Your task to perform on an android device: Search for Italian restaurants on Maps Image 0: 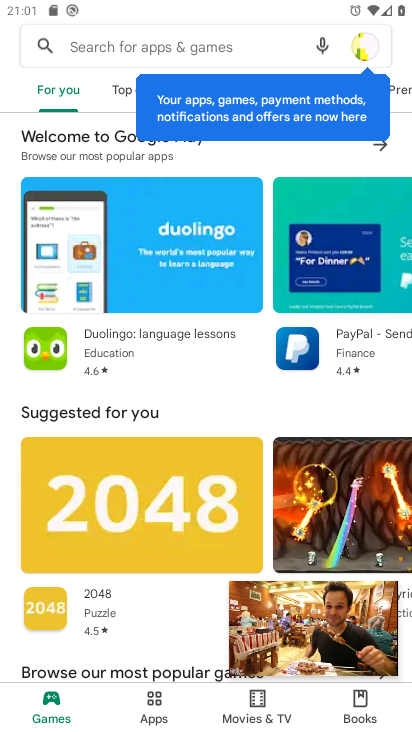
Step 0: press home button
Your task to perform on an android device: Search for Italian restaurants on Maps Image 1: 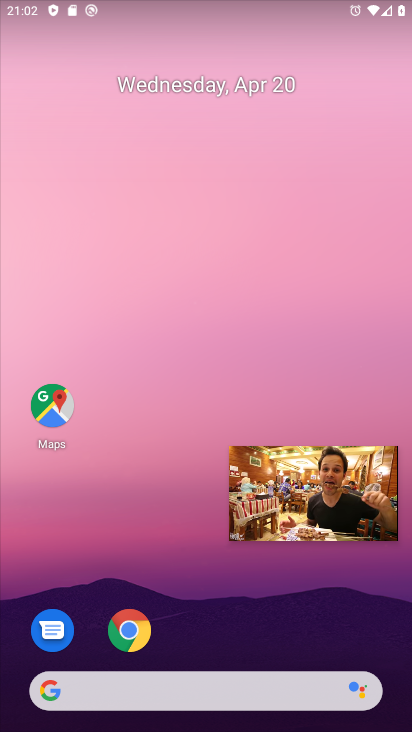
Step 1: click (44, 405)
Your task to perform on an android device: Search for Italian restaurants on Maps Image 2: 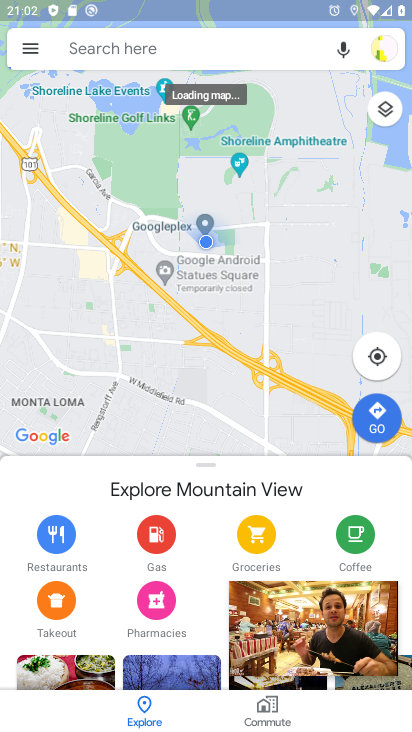
Step 2: click (158, 50)
Your task to perform on an android device: Search for Italian restaurants on Maps Image 3: 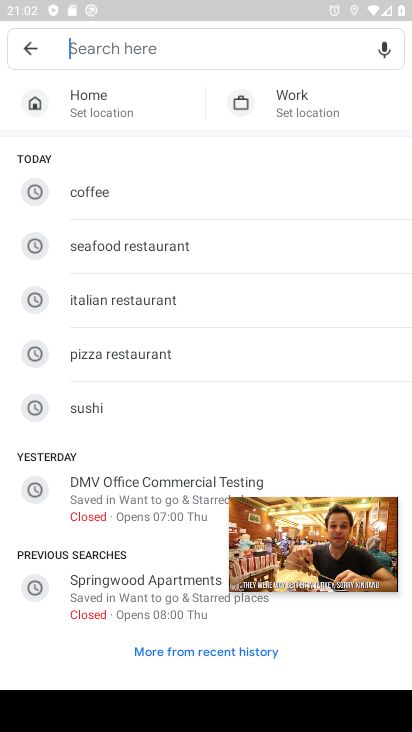
Step 3: click (177, 302)
Your task to perform on an android device: Search for Italian restaurants on Maps Image 4: 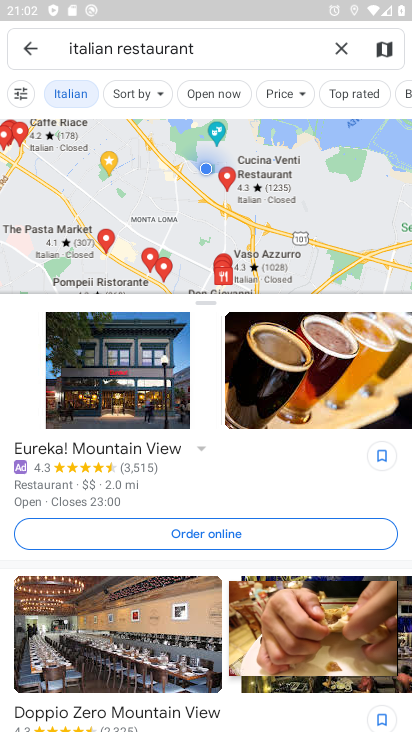
Step 4: task complete